Your task to perform on an android device: turn off data saver in the chrome app Image 0: 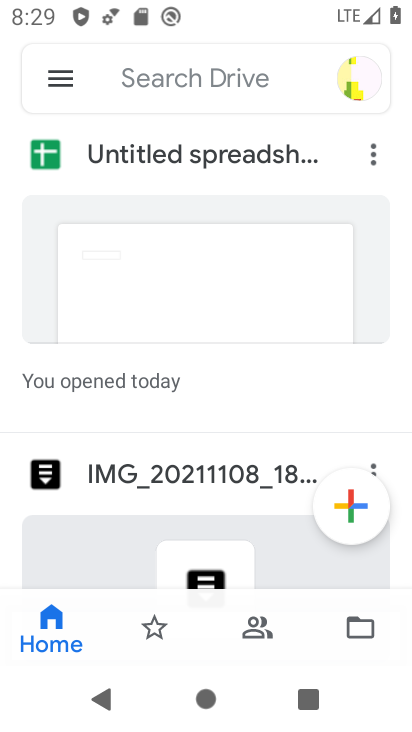
Step 0: press home button
Your task to perform on an android device: turn off data saver in the chrome app Image 1: 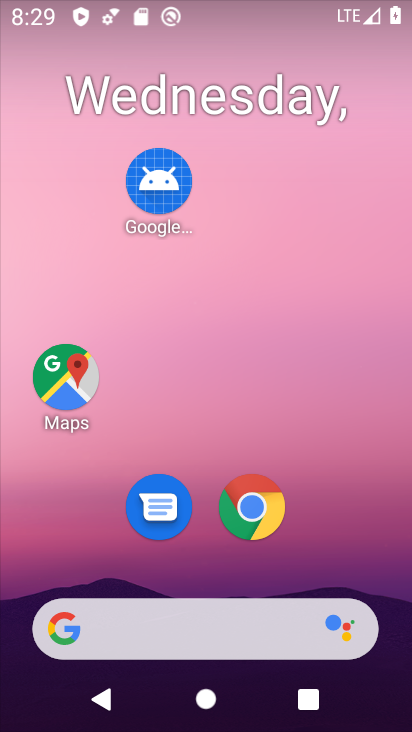
Step 1: drag from (213, 575) to (308, 77)
Your task to perform on an android device: turn off data saver in the chrome app Image 2: 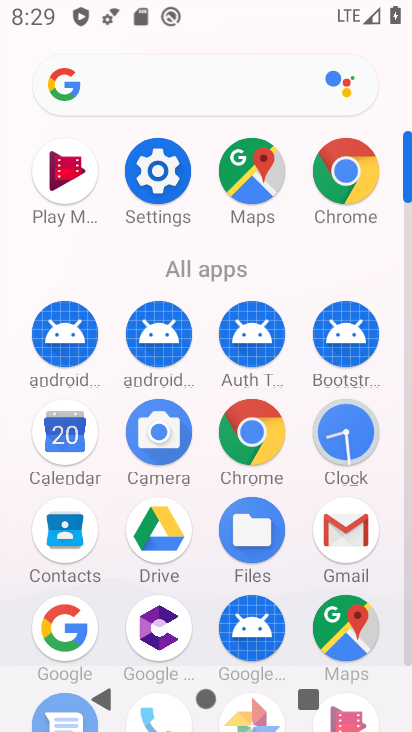
Step 2: click (249, 431)
Your task to perform on an android device: turn off data saver in the chrome app Image 3: 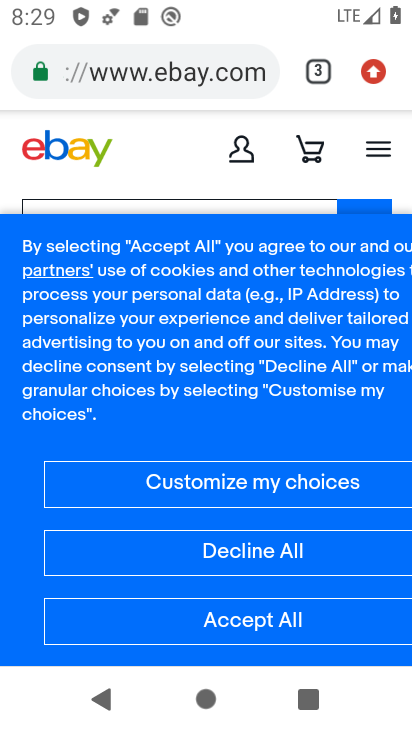
Step 3: click (374, 75)
Your task to perform on an android device: turn off data saver in the chrome app Image 4: 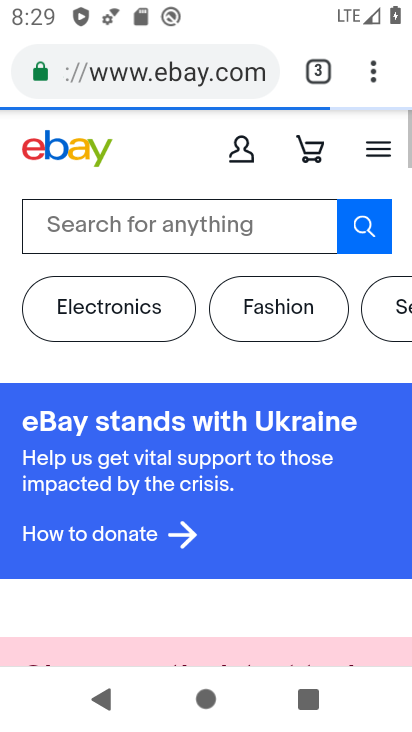
Step 4: click (373, 77)
Your task to perform on an android device: turn off data saver in the chrome app Image 5: 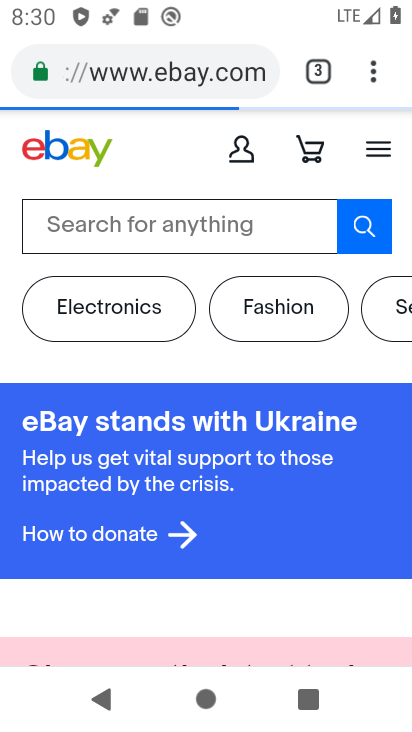
Step 5: drag from (367, 72) to (212, 506)
Your task to perform on an android device: turn off data saver in the chrome app Image 6: 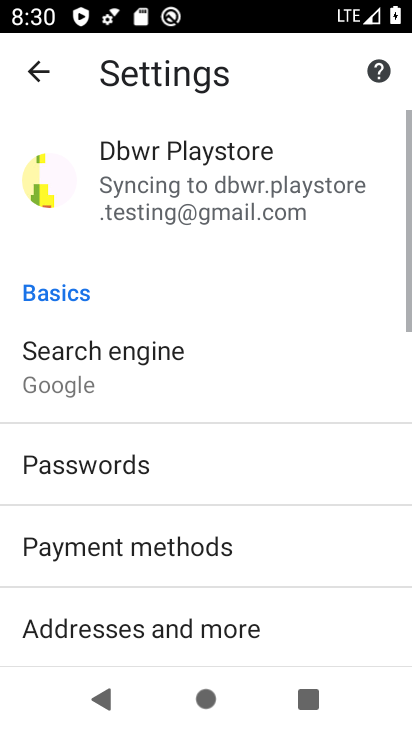
Step 6: drag from (225, 536) to (200, 38)
Your task to perform on an android device: turn off data saver in the chrome app Image 7: 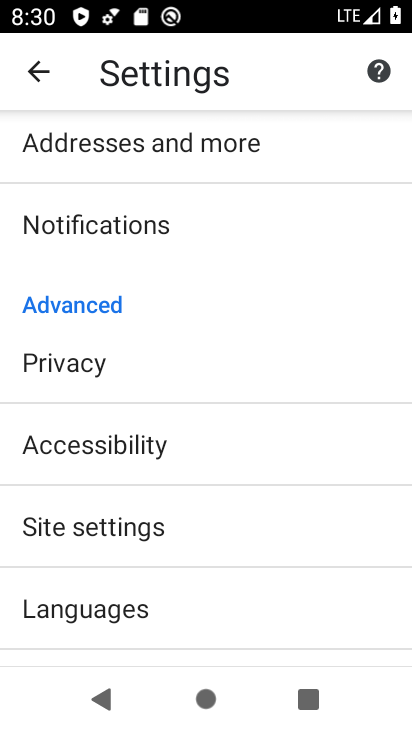
Step 7: click (156, 535)
Your task to perform on an android device: turn off data saver in the chrome app Image 8: 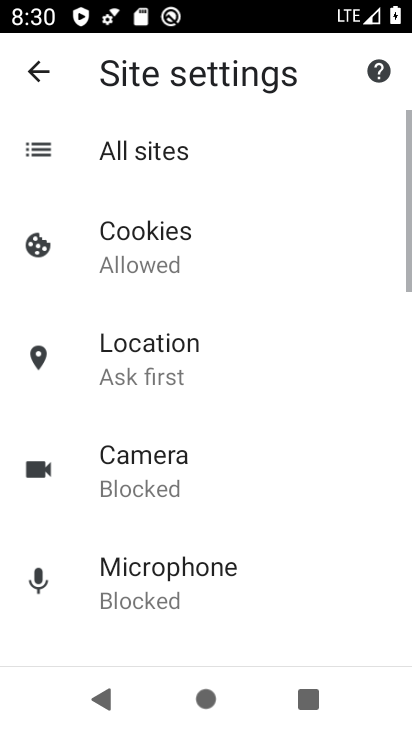
Step 8: drag from (174, 544) to (151, 76)
Your task to perform on an android device: turn off data saver in the chrome app Image 9: 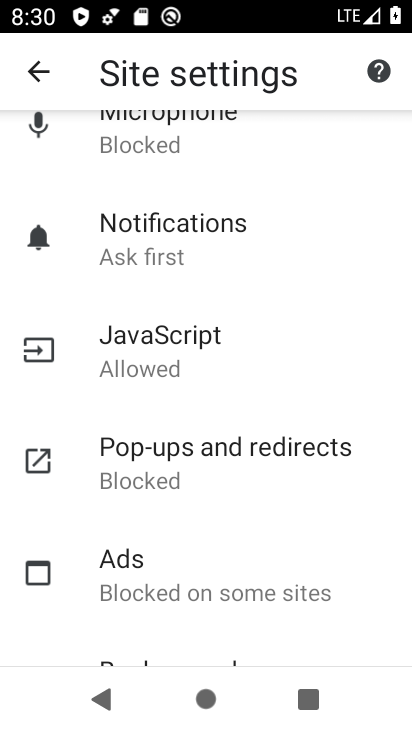
Step 9: click (33, 84)
Your task to perform on an android device: turn off data saver in the chrome app Image 10: 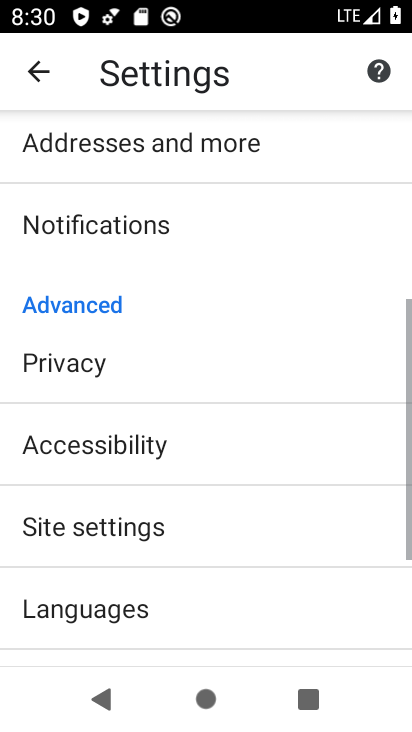
Step 10: drag from (180, 536) to (180, 123)
Your task to perform on an android device: turn off data saver in the chrome app Image 11: 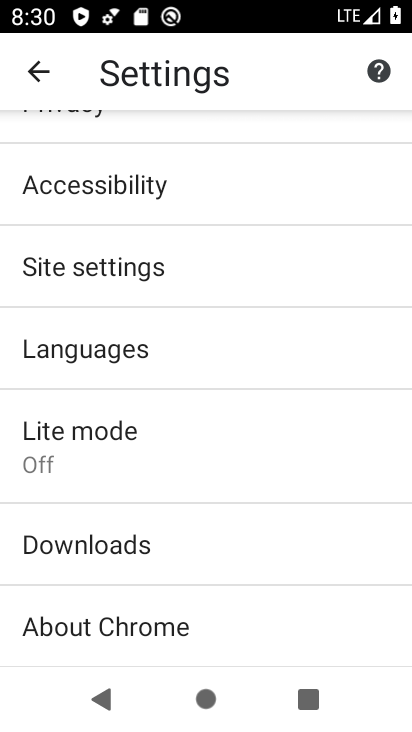
Step 11: click (101, 445)
Your task to perform on an android device: turn off data saver in the chrome app Image 12: 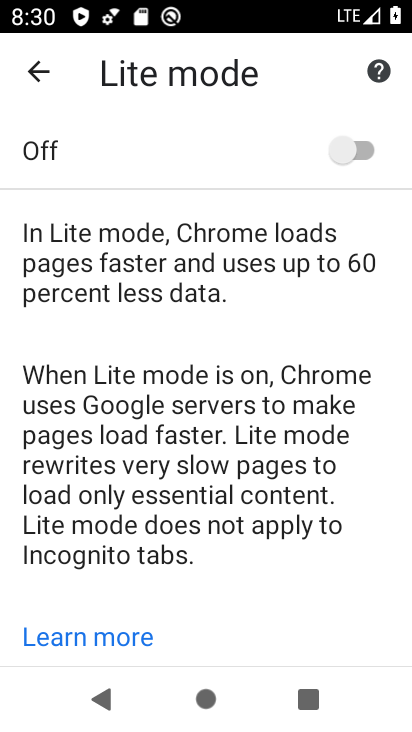
Step 12: task complete